Your task to perform on an android device: What's the weather? Image 0: 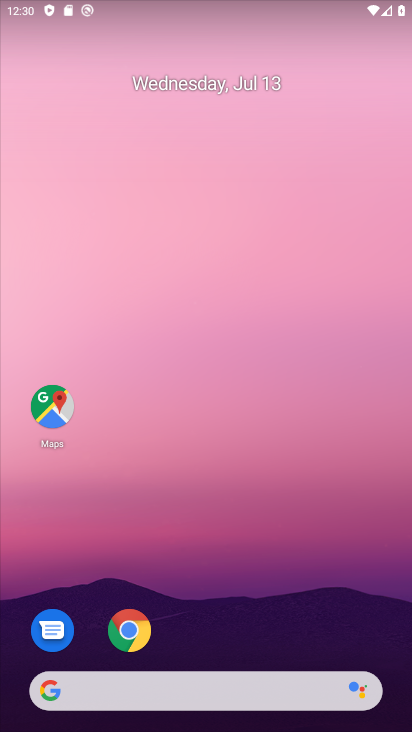
Step 0: click (96, 689)
Your task to perform on an android device: What's the weather? Image 1: 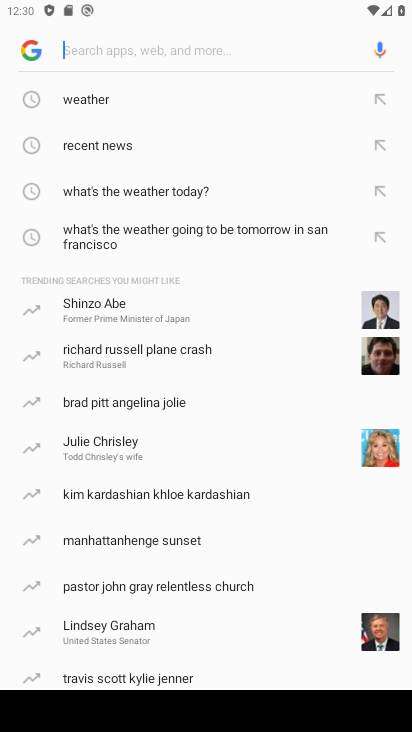
Step 1: click (89, 54)
Your task to perform on an android device: What's the weather? Image 2: 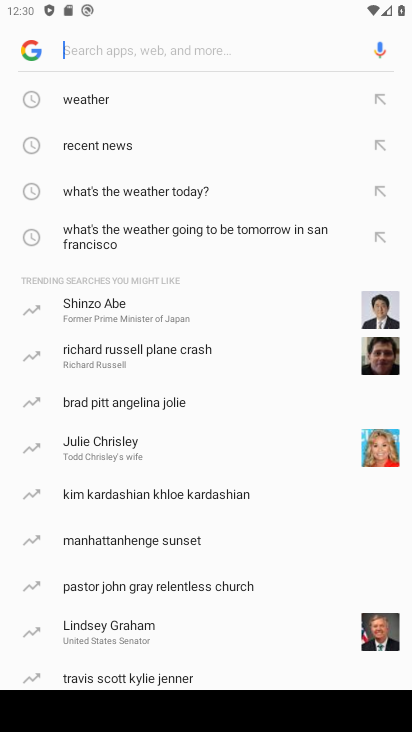
Step 2: type "What's the weather?"
Your task to perform on an android device: What's the weather? Image 3: 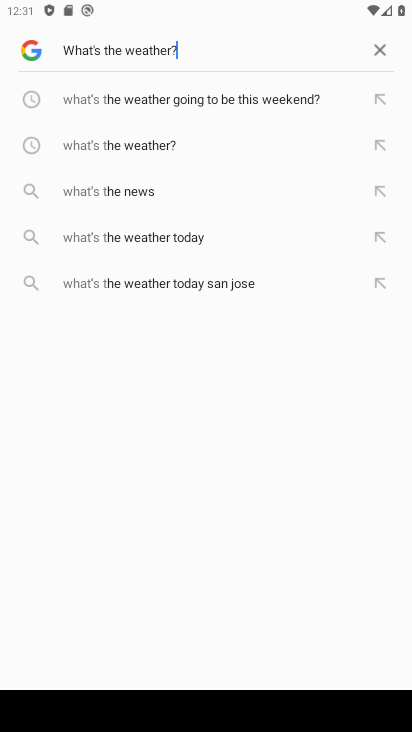
Step 3: type ""
Your task to perform on an android device: What's the weather? Image 4: 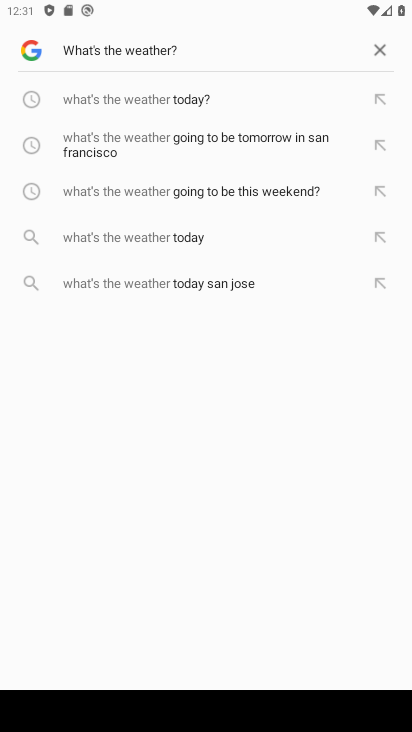
Step 4: type ""
Your task to perform on an android device: What's the weather? Image 5: 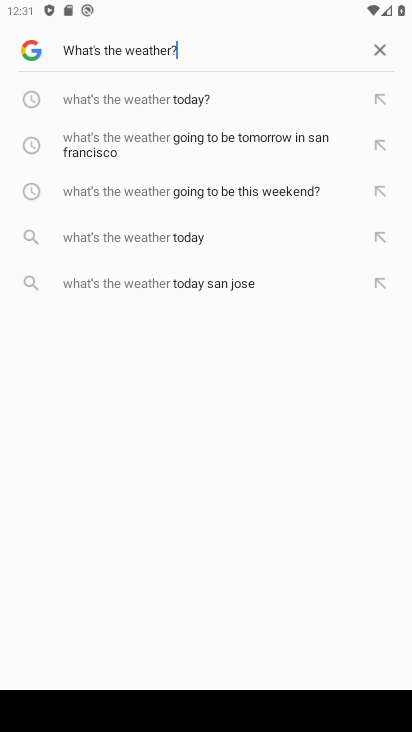
Step 5: type ""
Your task to perform on an android device: What's the weather? Image 6: 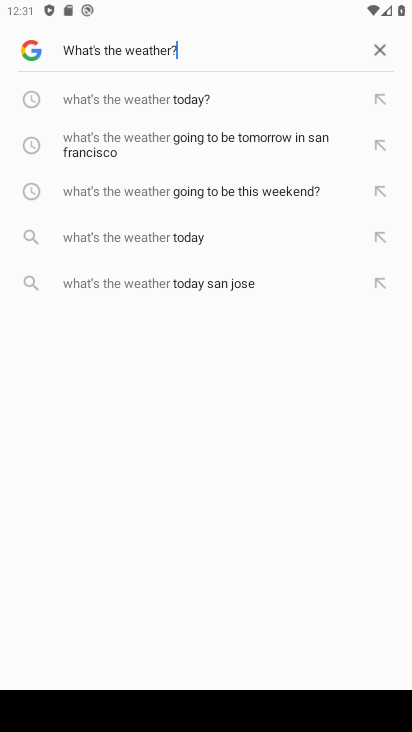
Step 6: task complete